Your task to perform on an android device: turn on the 24-hour format for clock Image 0: 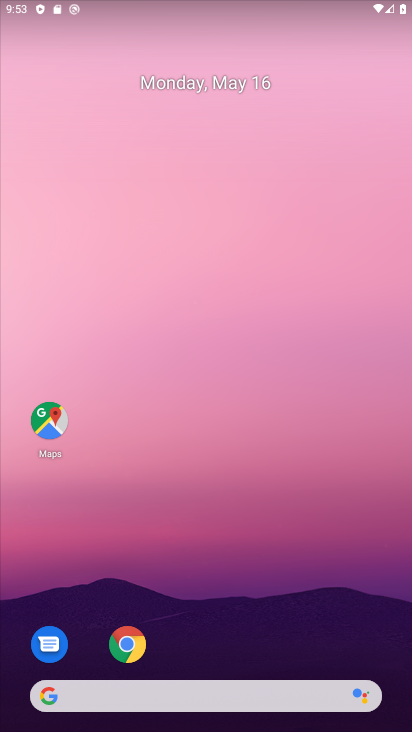
Step 0: drag from (29, 586) to (348, 108)
Your task to perform on an android device: turn on the 24-hour format for clock Image 1: 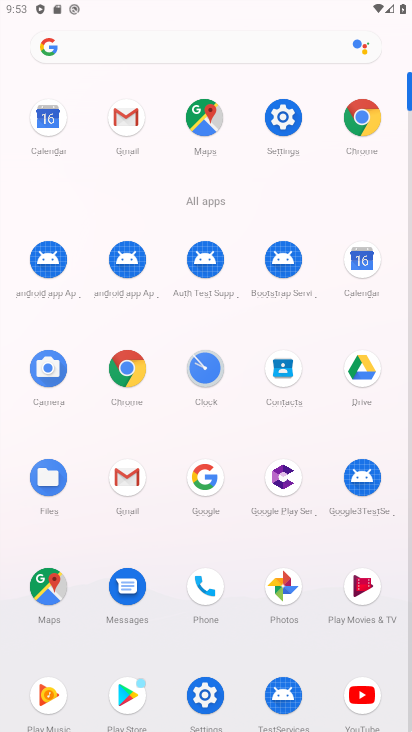
Step 1: click (200, 364)
Your task to perform on an android device: turn on the 24-hour format for clock Image 2: 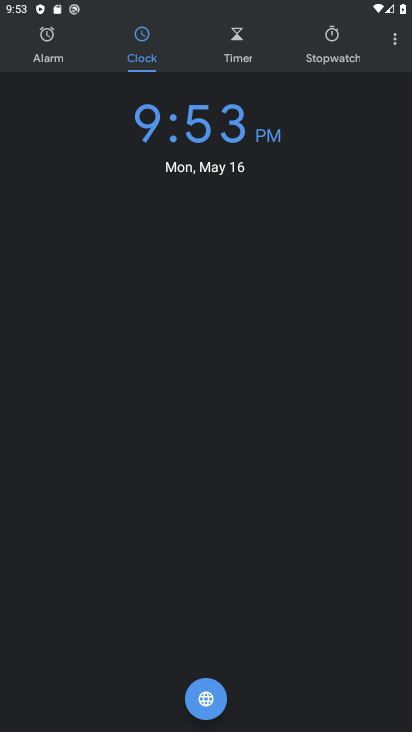
Step 2: click (389, 44)
Your task to perform on an android device: turn on the 24-hour format for clock Image 3: 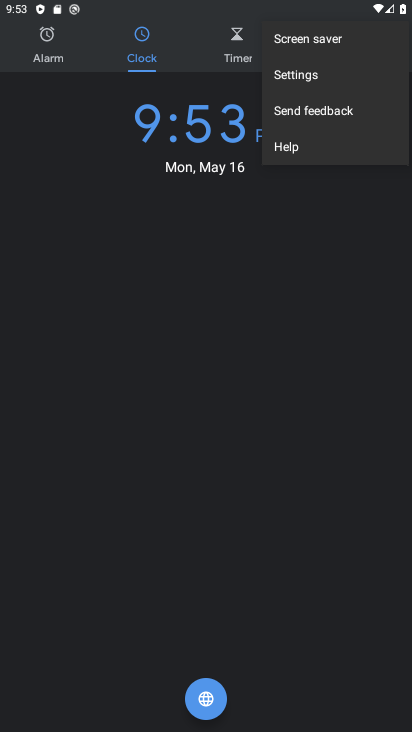
Step 3: click (319, 86)
Your task to perform on an android device: turn on the 24-hour format for clock Image 4: 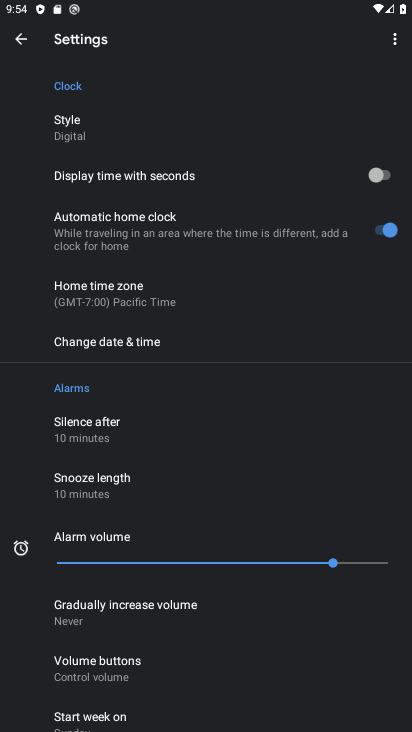
Step 4: click (125, 349)
Your task to perform on an android device: turn on the 24-hour format for clock Image 5: 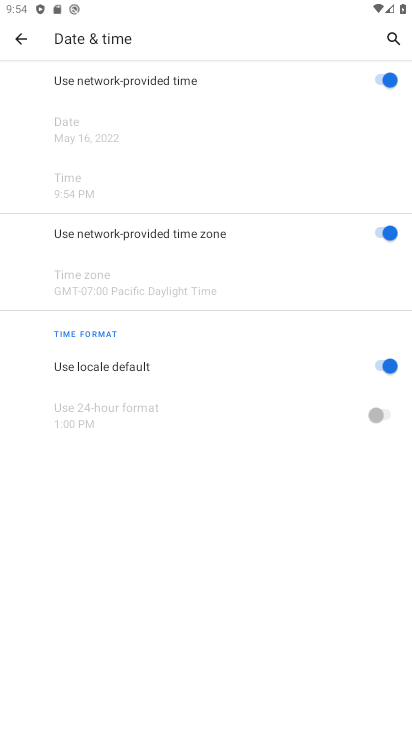
Step 5: click (384, 367)
Your task to perform on an android device: turn on the 24-hour format for clock Image 6: 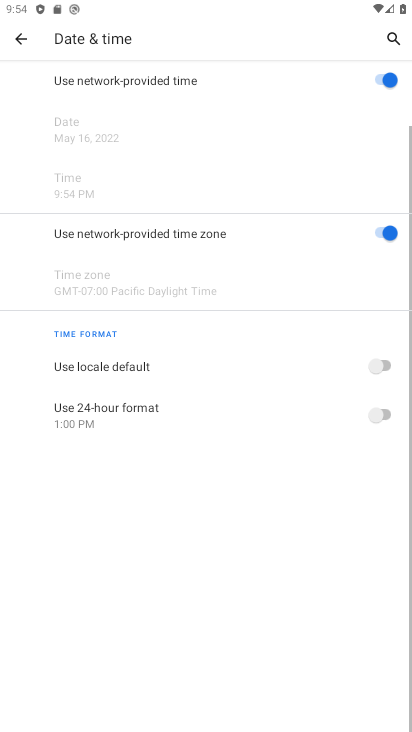
Step 6: click (371, 414)
Your task to perform on an android device: turn on the 24-hour format for clock Image 7: 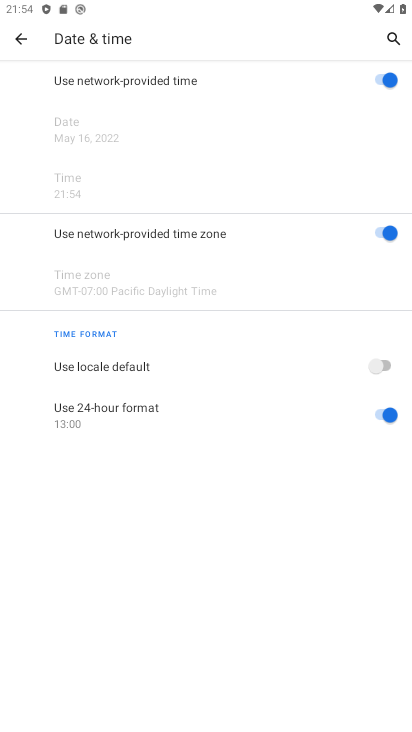
Step 7: task complete